Your task to perform on an android device: install app "WhatsApp Messenger" Image 0: 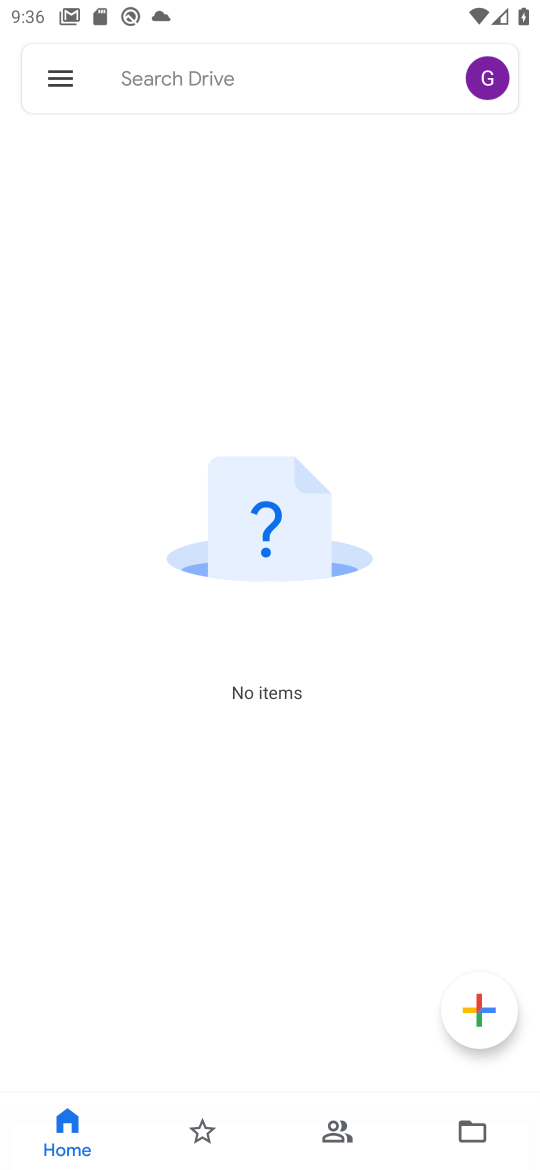
Step 0: press home button
Your task to perform on an android device: install app "WhatsApp Messenger" Image 1: 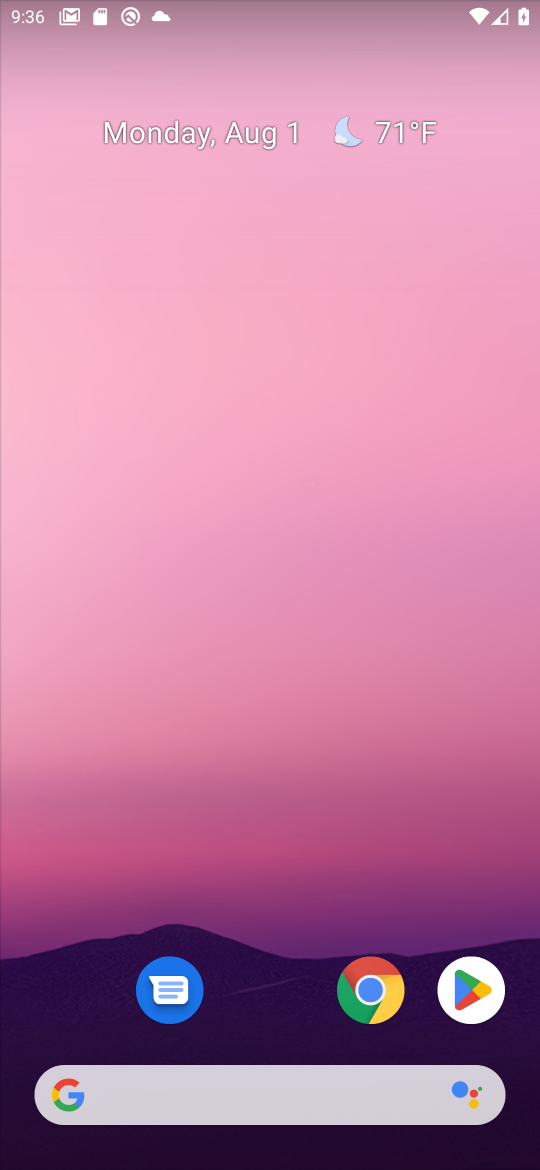
Step 1: click (471, 988)
Your task to perform on an android device: install app "WhatsApp Messenger" Image 2: 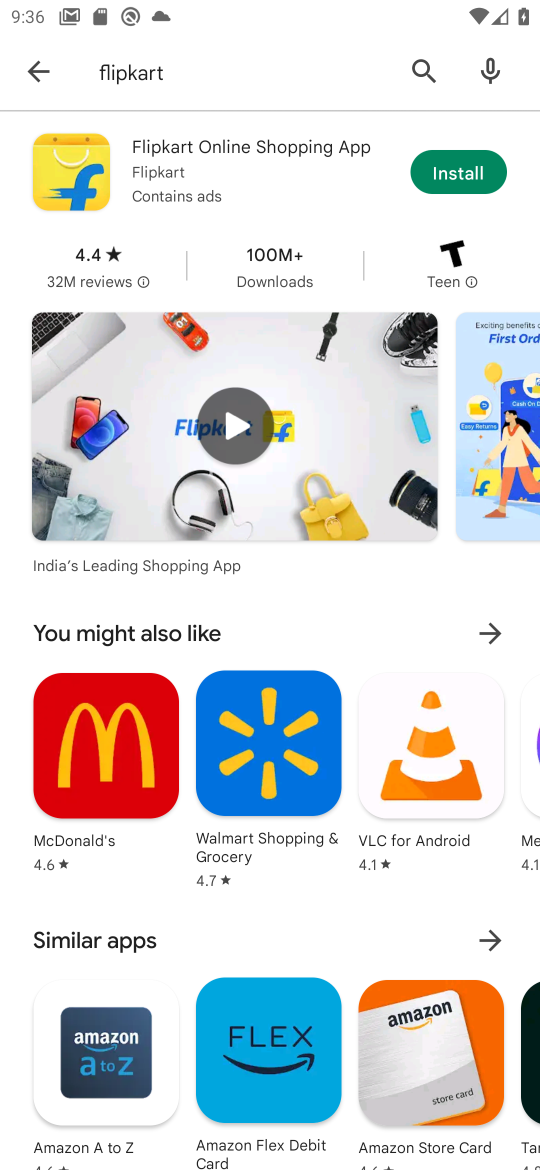
Step 2: click (396, 76)
Your task to perform on an android device: install app "WhatsApp Messenger" Image 3: 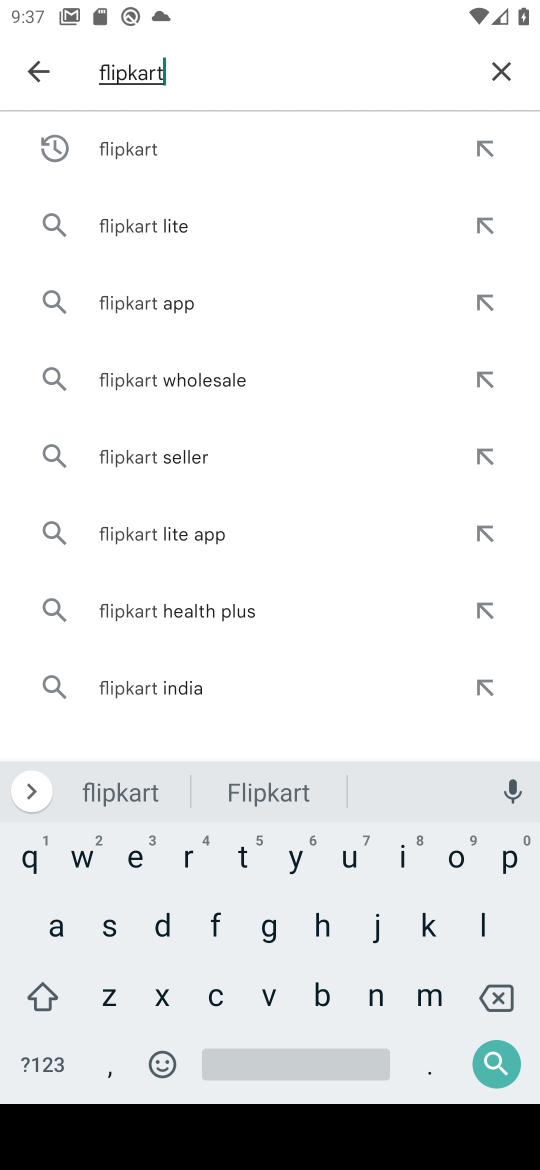
Step 3: click (495, 66)
Your task to perform on an android device: install app "WhatsApp Messenger" Image 4: 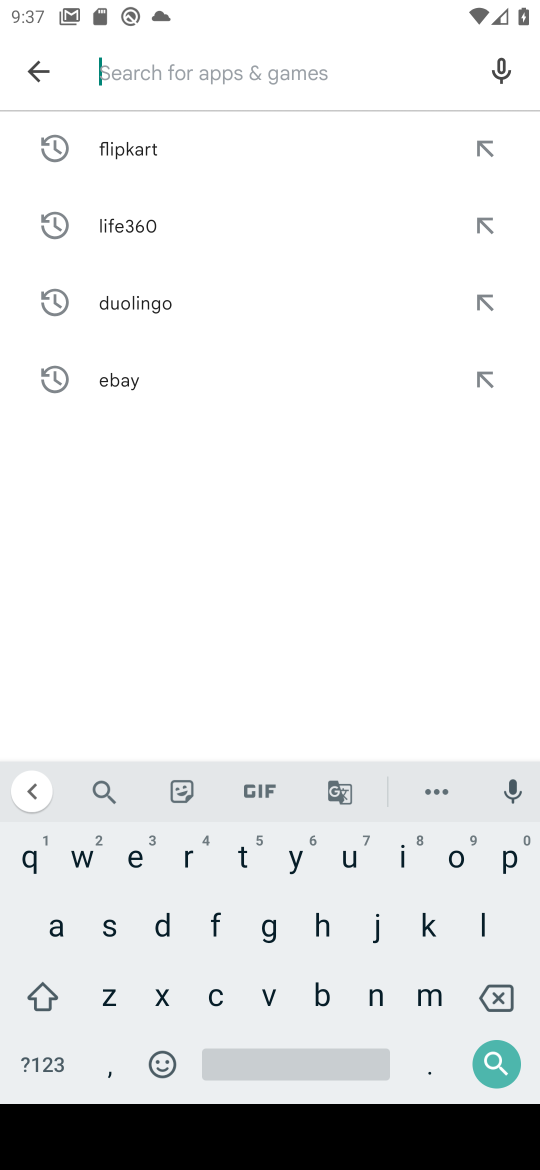
Step 4: click (89, 857)
Your task to perform on an android device: install app "WhatsApp Messenger" Image 5: 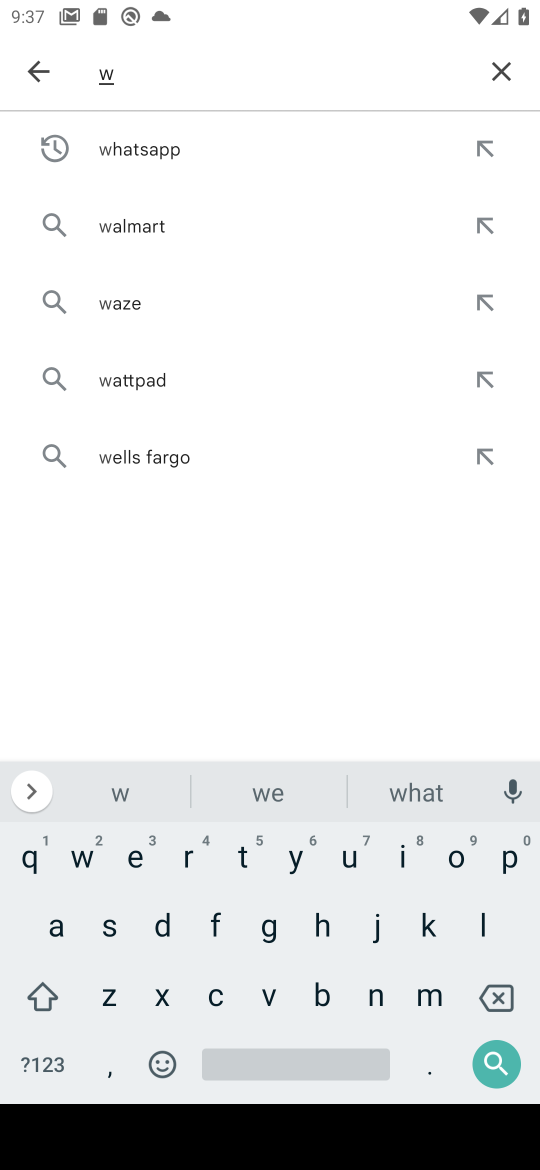
Step 5: click (331, 918)
Your task to perform on an android device: install app "WhatsApp Messenger" Image 6: 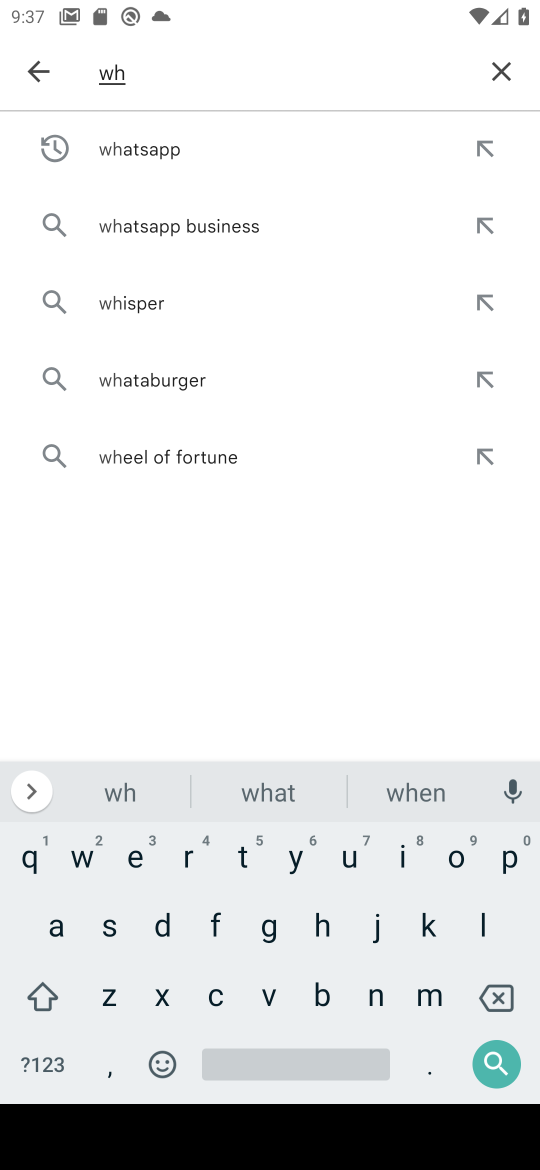
Step 6: click (164, 145)
Your task to perform on an android device: install app "WhatsApp Messenger" Image 7: 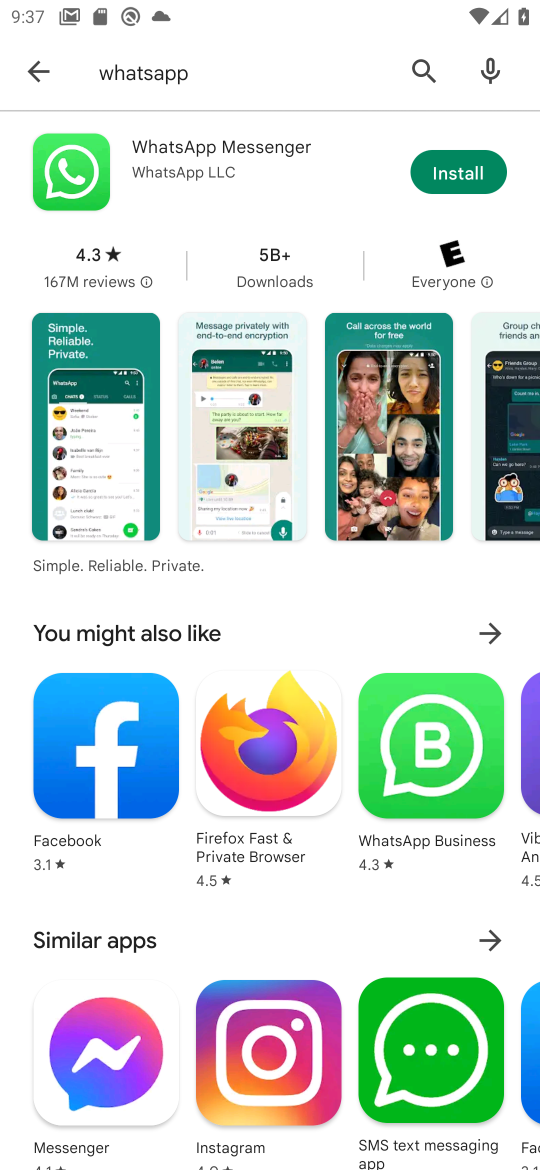
Step 7: click (442, 171)
Your task to perform on an android device: install app "WhatsApp Messenger" Image 8: 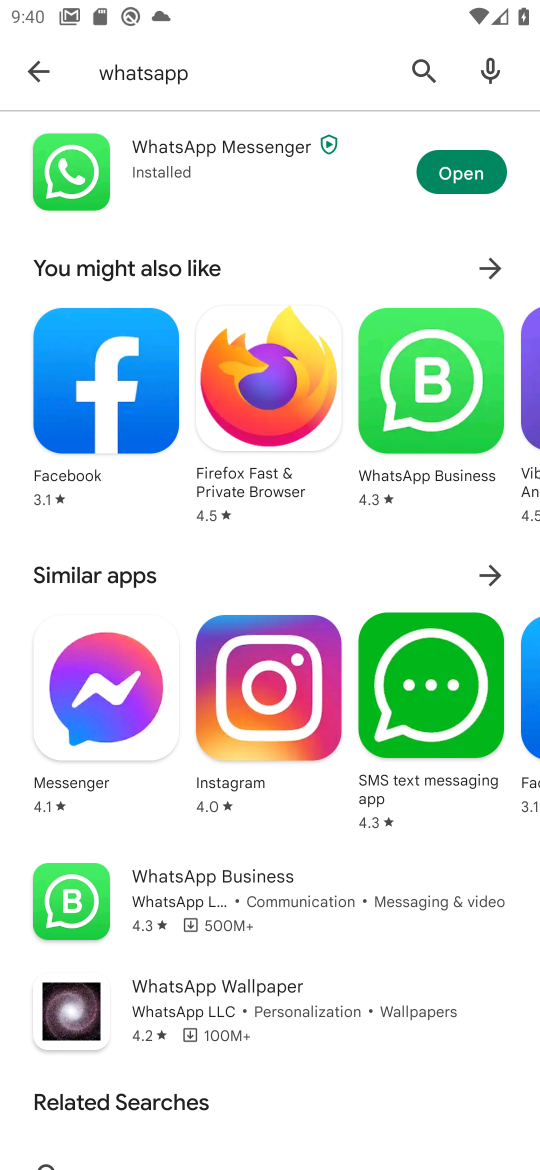
Step 8: task complete